Your task to perform on an android device: Add "razer blade" to the cart on walmart.com, then select checkout. Image 0: 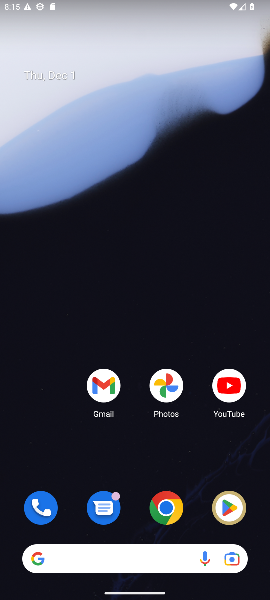
Step 0: click (164, 520)
Your task to perform on an android device: Add "razer blade" to the cart on walmart.com, then select checkout. Image 1: 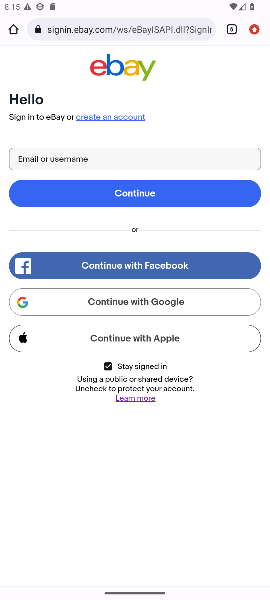
Step 1: click (230, 30)
Your task to perform on an android device: Add "razer blade" to the cart on walmart.com, then select checkout. Image 2: 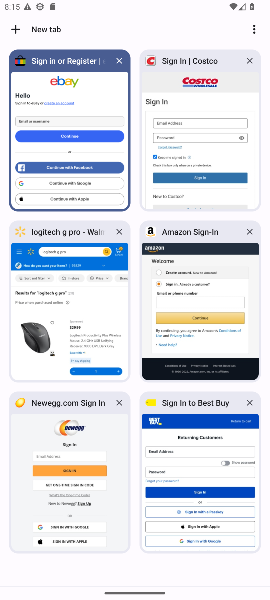
Step 2: click (60, 277)
Your task to perform on an android device: Add "razer blade" to the cart on walmart.com, then select checkout. Image 3: 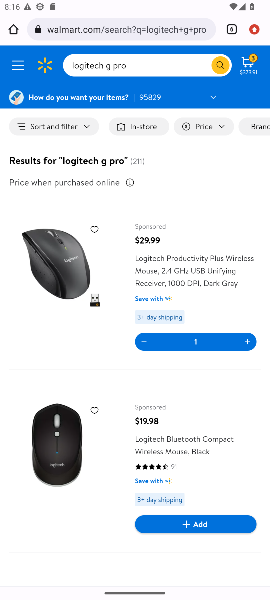
Step 3: click (170, 63)
Your task to perform on an android device: Add "razer blade" to the cart on walmart.com, then select checkout. Image 4: 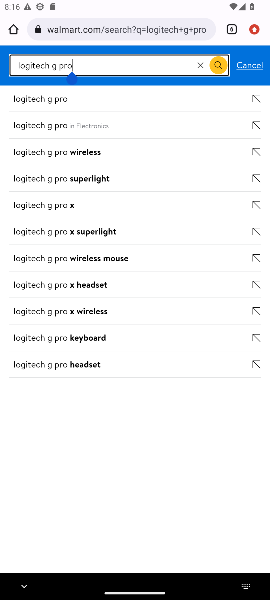
Step 4: click (201, 65)
Your task to perform on an android device: Add "razer blade" to the cart on walmart.com, then select checkout. Image 5: 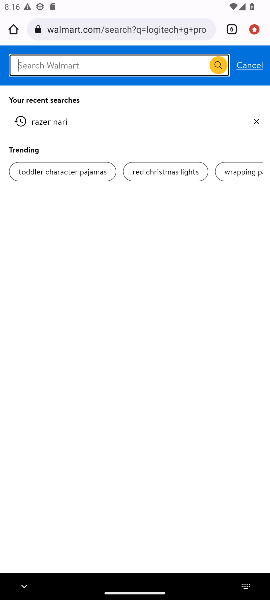
Step 5: type "razer blade"
Your task to perform on an android device: Add "razer blade" to the cart on walmart.com, then select checkout. Image 6: 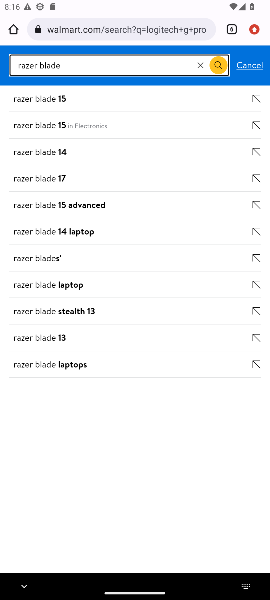
Step 6: click (216, 65)
Your task to perform on an android device: Add "razer blade" to the cart on walmart.com, then select checkout. Image 7: 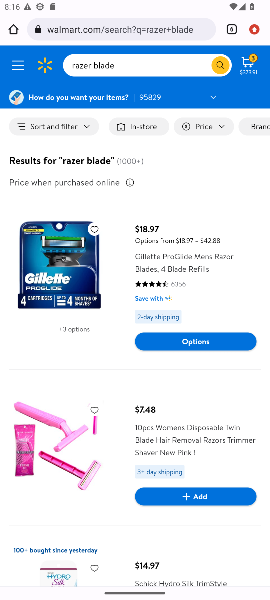
Step 7: click (80, 265)
Your task to perform on an android device: Add "razer blade" to the cart on walmart.com, then select checkout. Image 8: 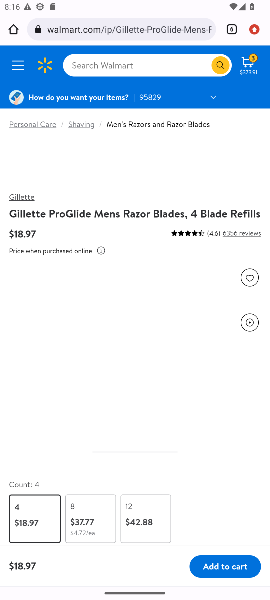
Step 8: click (217, 565)
Your task to perform on an android device: Add "razer blade" to the cart on walmart.com, then select checkout. Image 9: 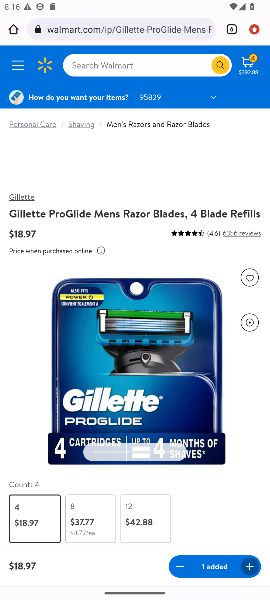
Step 9: drag from (184, 542) to (190, 258)
Your task to perform on an android device: Add "razer blade" to the cart on walmart.com, then select checkout. Image 10: 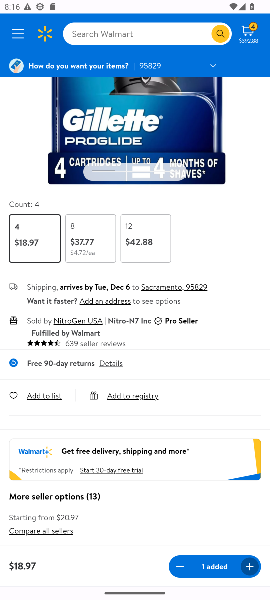
Step 10: click (254, 35)
Your task to perform on an android device: Add "razer blade" to the cart on walmart.com, then select checkout. Image 11: 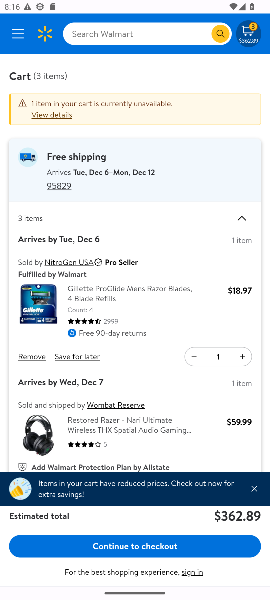
Step 11: click (92, 544)
Your task to perform on an android device: Add "razer blade" to the cart on walmart.com, then select checkout. Image 12: 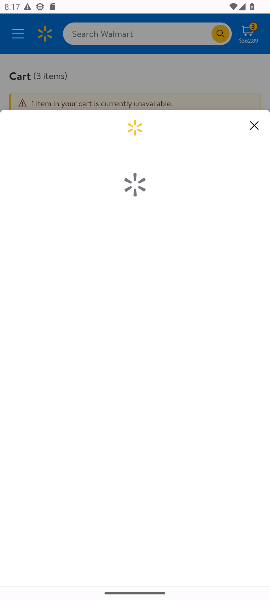
Step 12: task complete